Your task to perform on an android device: empty trash in google photos Image 0: 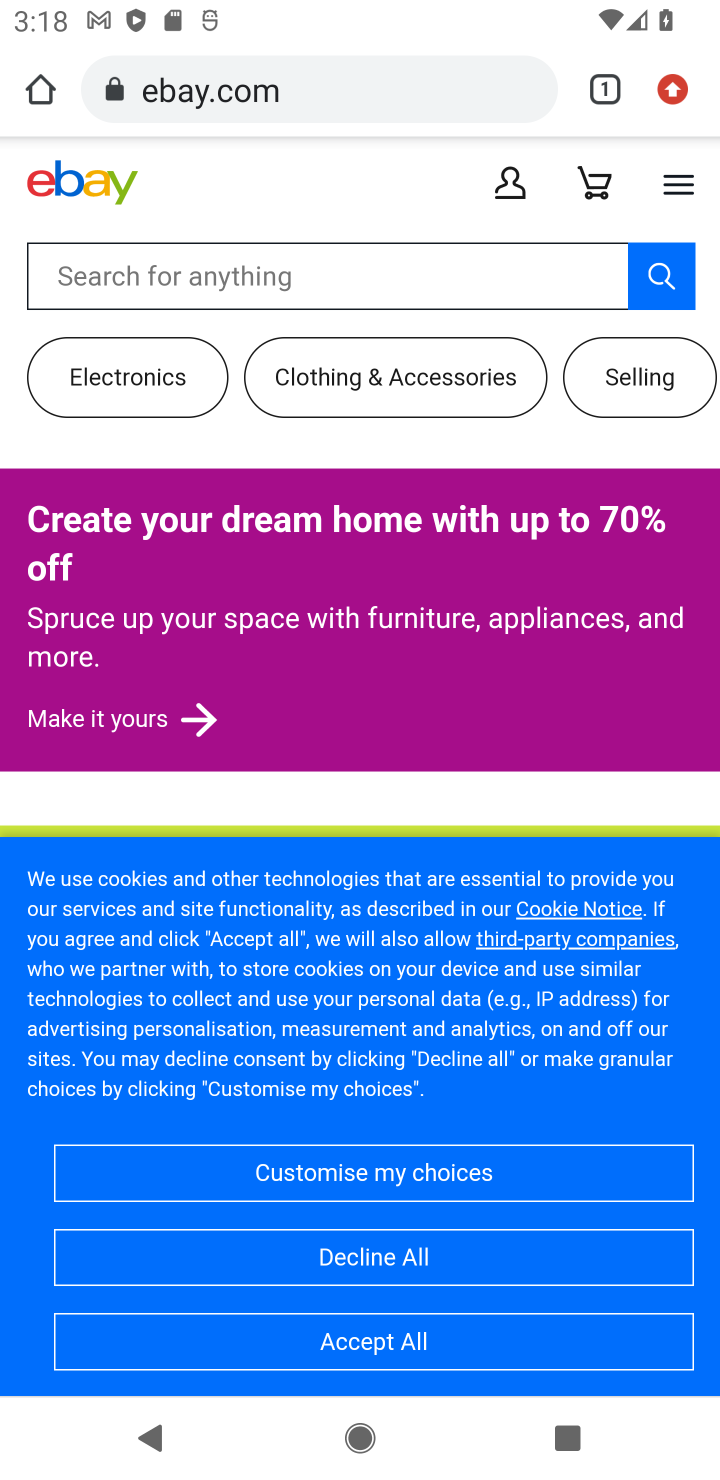
Step 0: press home button
Your task to perform on an android device: empty trash in google photos Image 1: 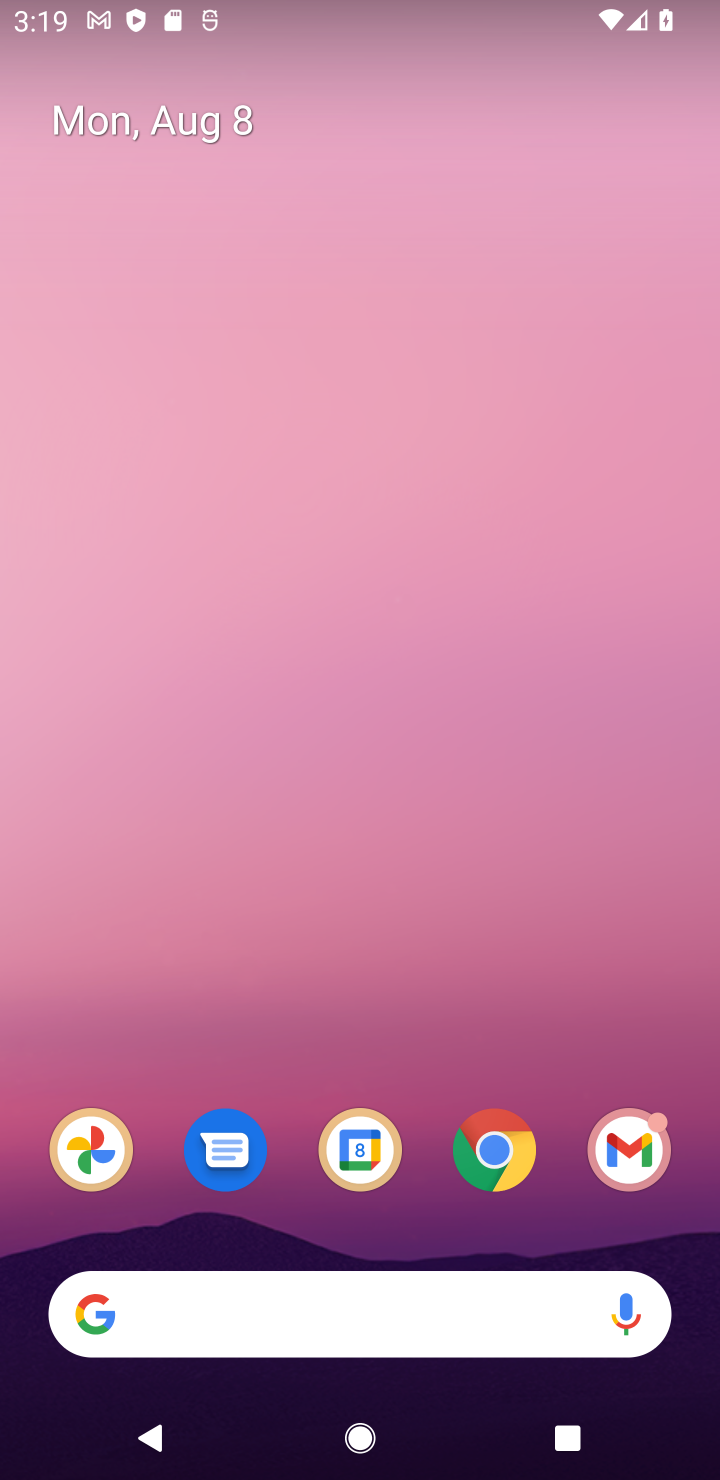
Step 1: click (75, 1183)
Your task to perform on an android device: empty trash in google photos Image 2: 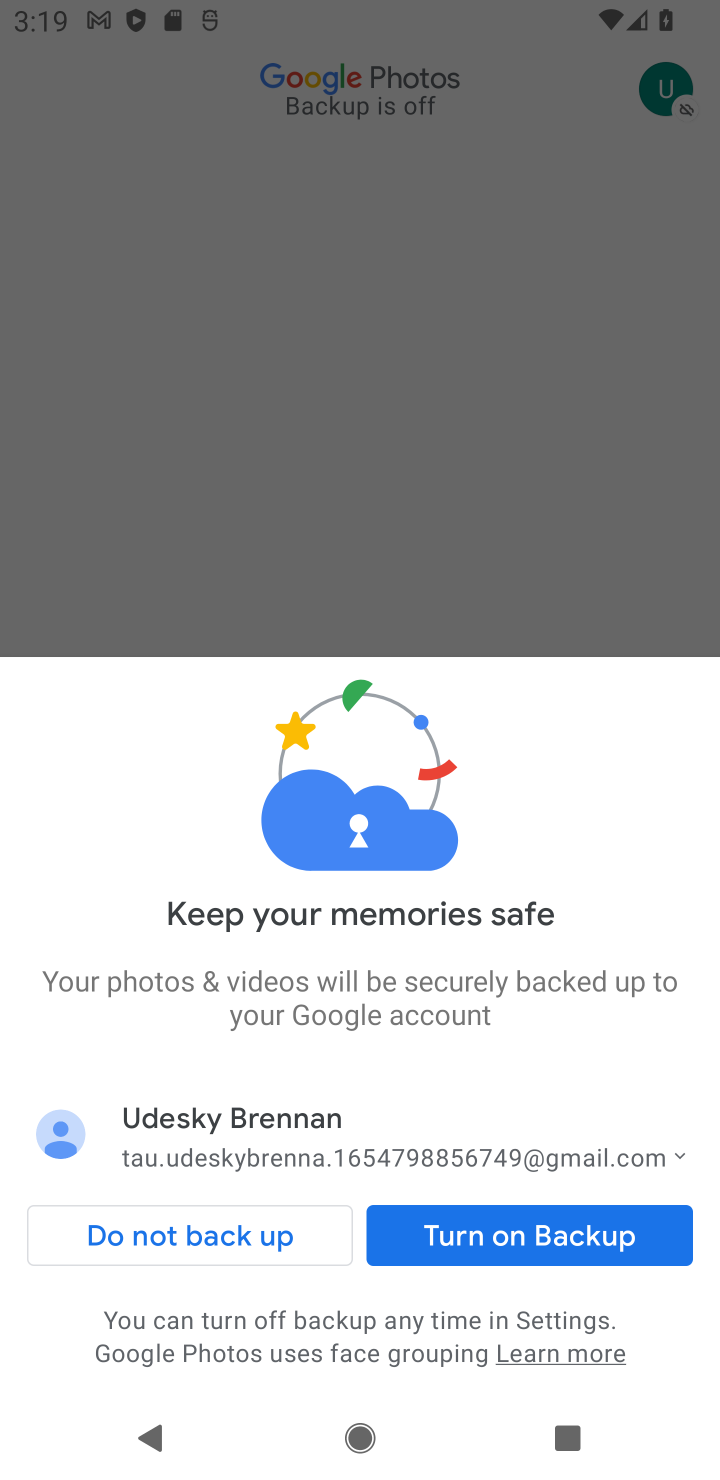
Step 2: task complete